Your task to perform on an android device: turn off improve location accuracy Image 0: 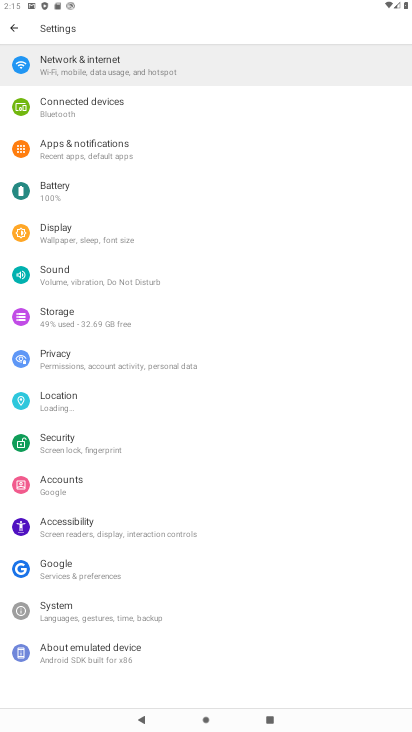
Step 0: press home button
Your task to perform on an android device: turn off improve location accuracy Image 1: 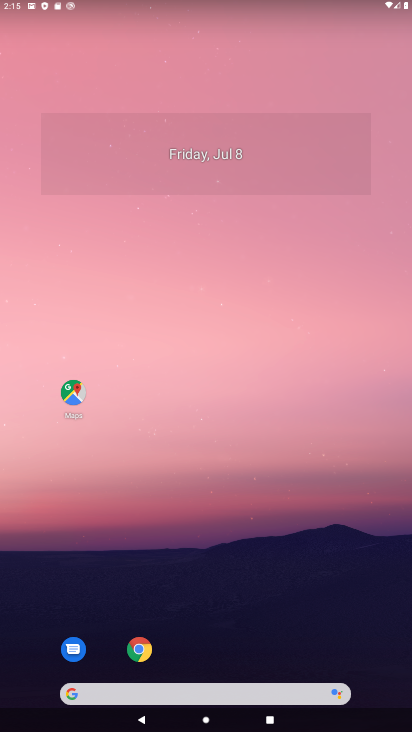
Step 1: drag from (329, 554) to (228, 177)
Your task to perform on an android device: turn off improve location accuracy Image 2: 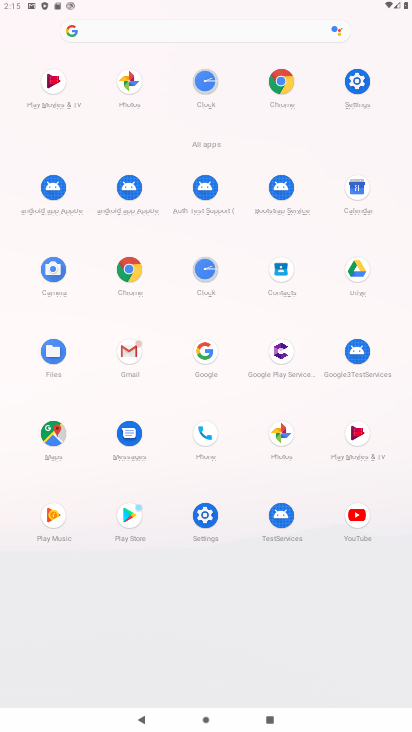
Step 2: click (351, 74)
Your task to perform on an android device: turn off improve location accuracy Image 3: 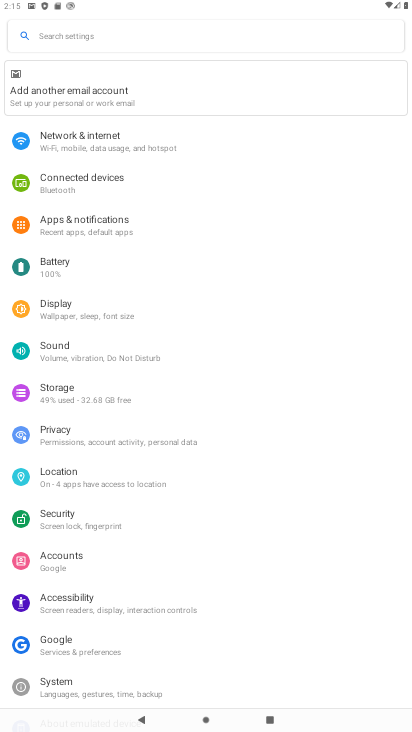
Step 3: click (80, 472)
Your task to perform on an android device: turn off improve location accuracy Image 4: 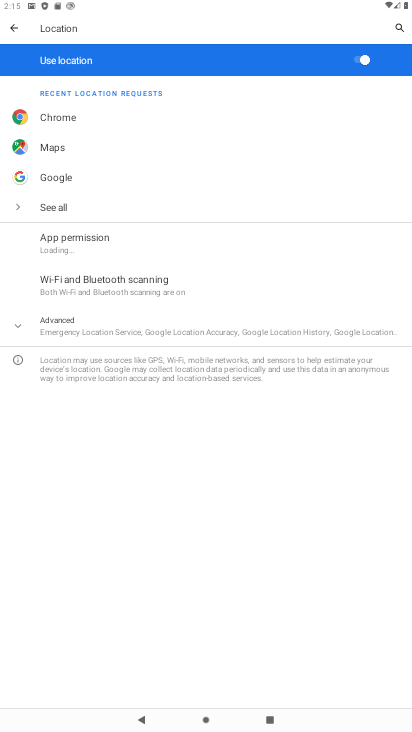
Step 4: click (81, 322)
Your task to perform on an android device: turn off improve location accuracy Image 5: 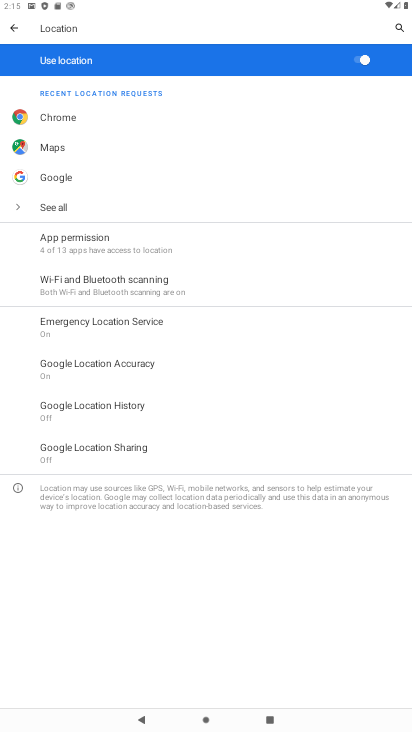
Step 5: click (59, 359)
Your task to perform on an android device: turn off improve location accuracy Image 6: 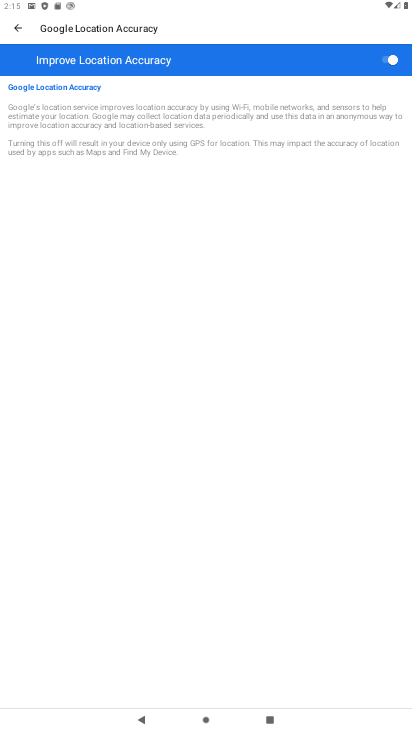
Step 6: click (395, 52)
Your task to perform on an android device: turn off improve location accuracy Image 7: 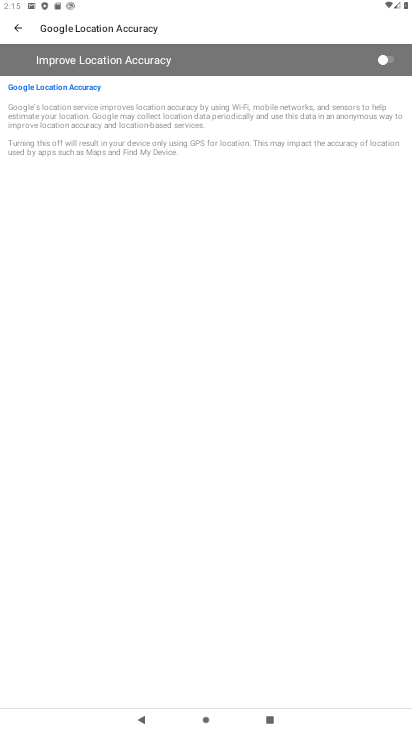
Step 7: task complete